Your task to perform on an android device: Turn off the flashlight Image 0: 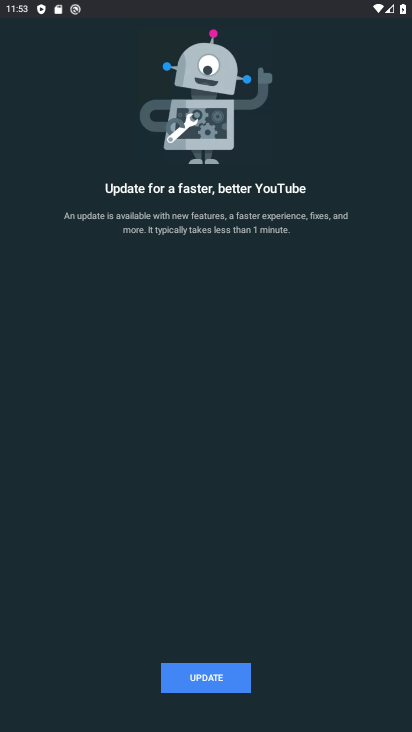
Step 0: press home button
Your task to perform on an android device: Turn off the flashlight Image 1: 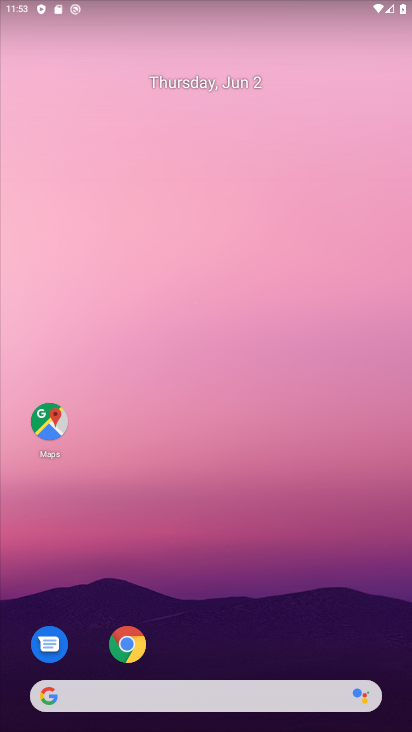
Step 1: drag from (209, 721) to (149, 25)
Your task to perform on an android device: Turn off the flashlight Image 2: 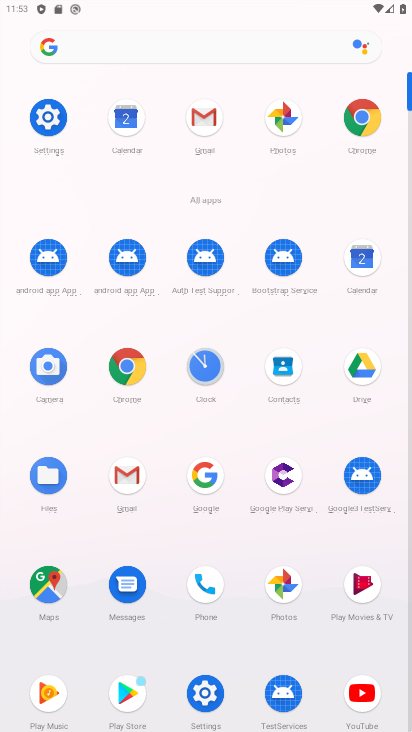
Step 2: click (48, 120)
Your task to perform on an android device: Turn off the flashlight Image 3: 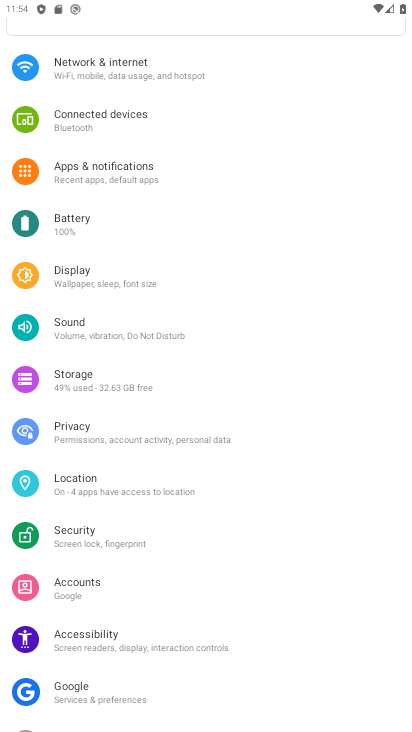
Step 3: task complete